Your task to perform on an android device: check storage Image 0: 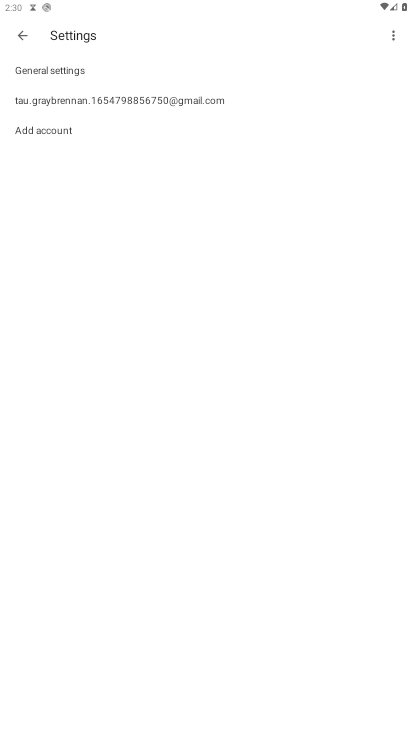
Step 0: press home button
Your task to perform on an android device: check storage Image 1: 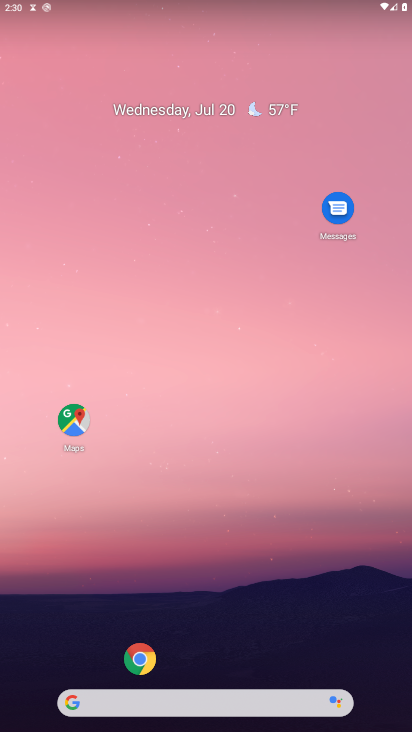
Step 1: click (162, 118)
Your task to perform on an android device: check storage Image 2: 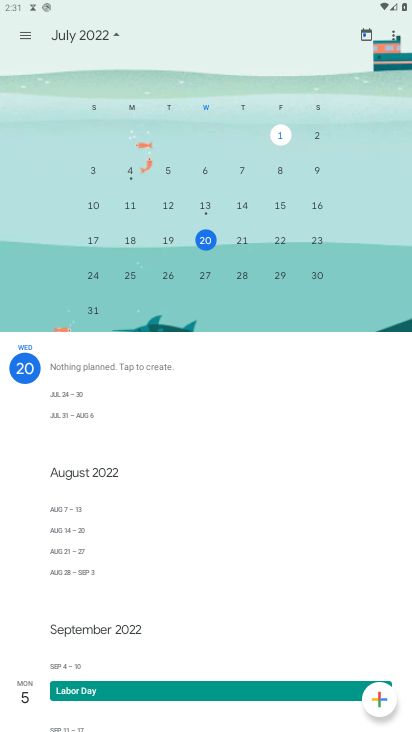
Step 2: press home button
Your task to perform on an android device: check storage Image 3: 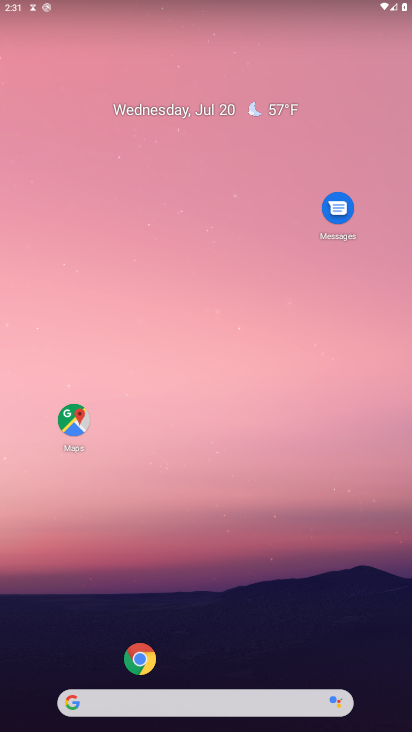
Step 3: drag from (86, 571) to (242, 0)
Your task to perform on an android device: check storage Image 4: 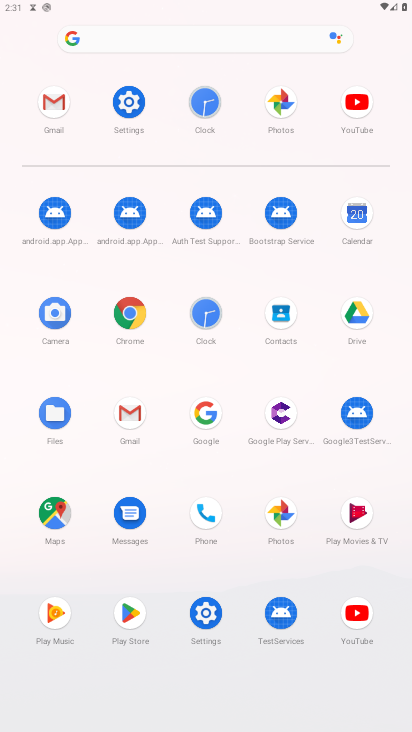
Step 4: click (193, 613)
Your task to perform on an android device: check storage Image 5: 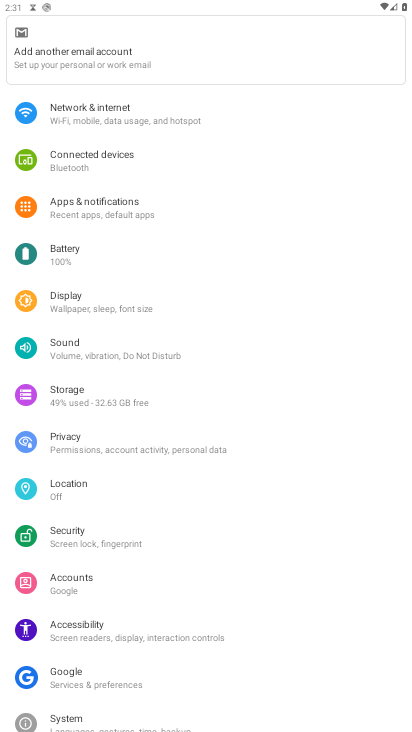
Step 5: click (77, 393)
Your task to perform on an android device: check storage Image 6: 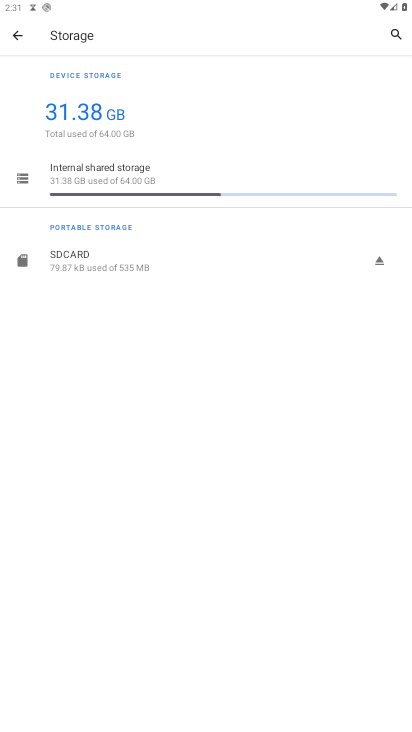
Step 6: task complete